Your task to perform on an android device: change the clock style Image 0: 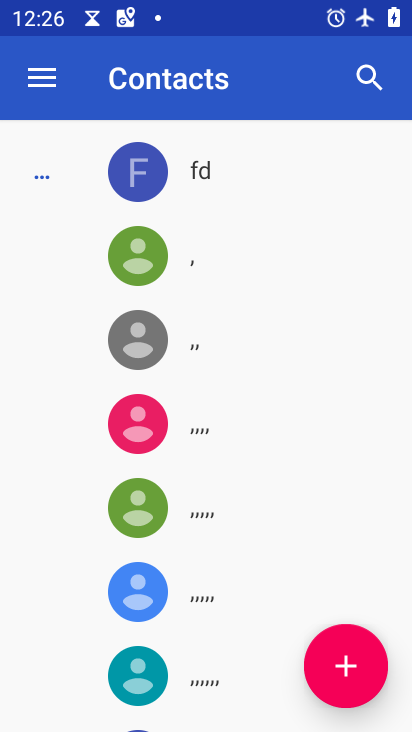
Step 0: press home button
Your task to perform on an android device: change the clock style Image 1: 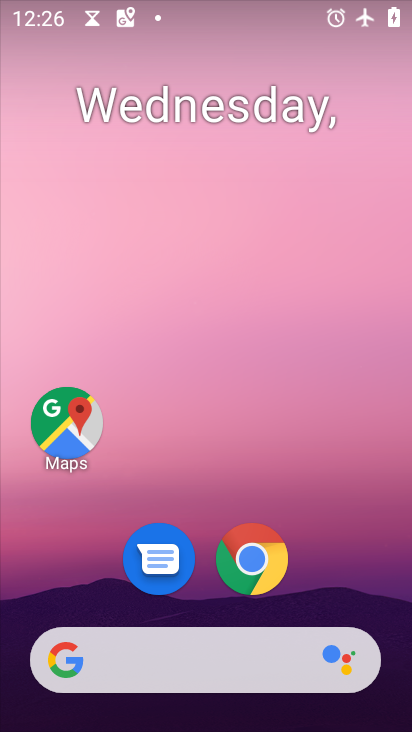
Step 1: drag from (363, 597) to (293, 34)
Your task to perform on an android device: change the clock style Image 2: 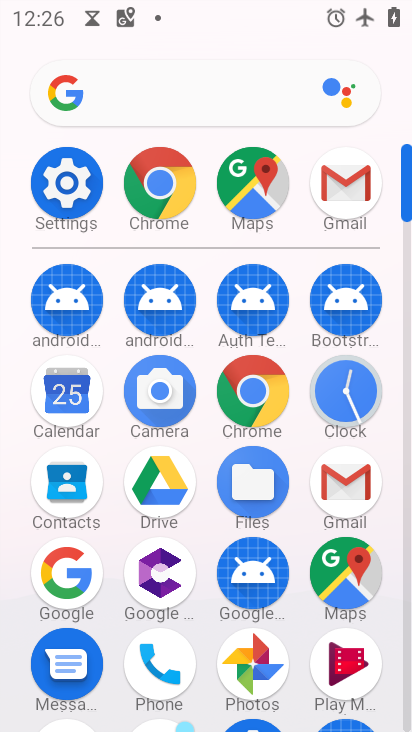
Step 2: click (348, 401)
Your task to perform on an android device: change the clock style Image 3: 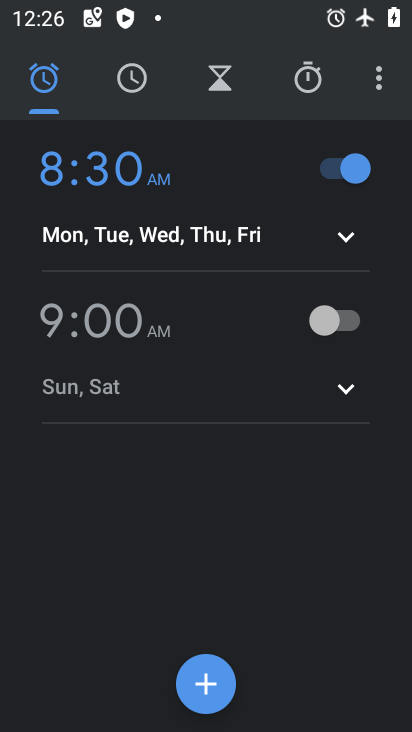
Step 3: click (369, 94)
Your task to perform on an android device: change the clock style Image 4: 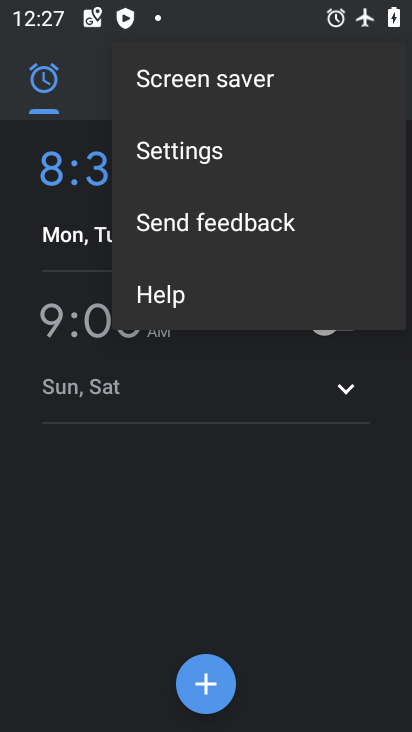
Step 4: click (199, 172)
Your task to perform on an android device: change the clock style Image 5: 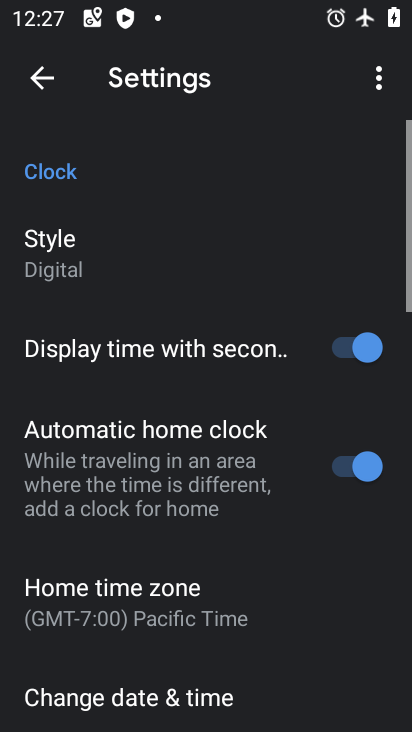
Step 5: click (74, 261)
Your task to perform on an android device: change the clock style Image 6: 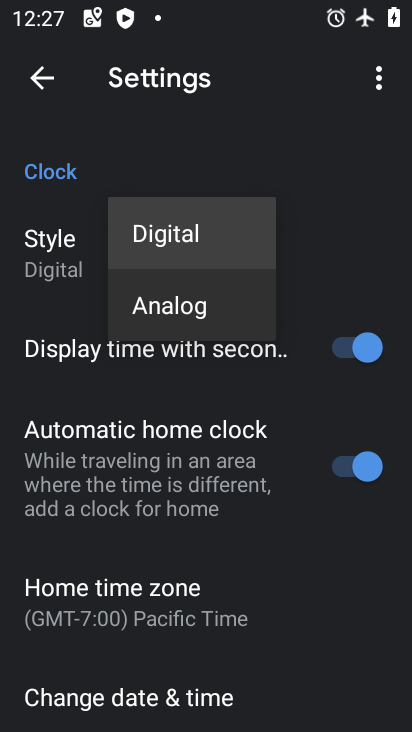
Step 6: click (152, 304)
Your task to perform on an android device: change the clock style Image 7: 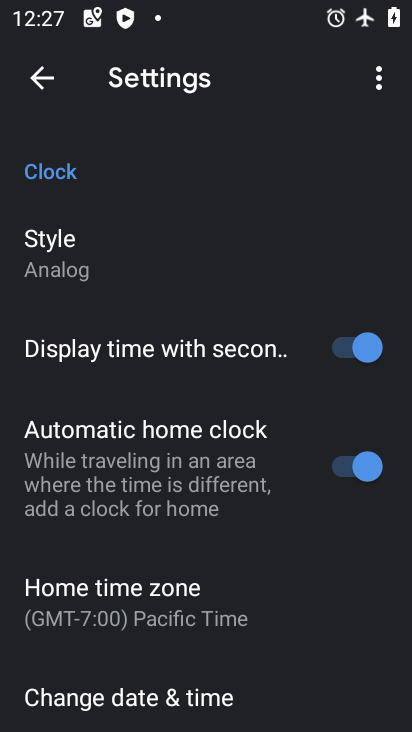
Step 7: task complete